Your task to perform on an android device: all mails in gmail Image 0: 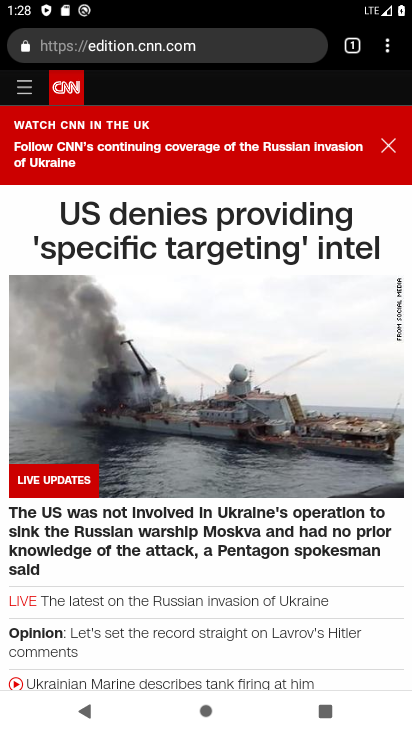
Step 0: press home button
Your task to perform on an android device: all mails in gmail Image 1: 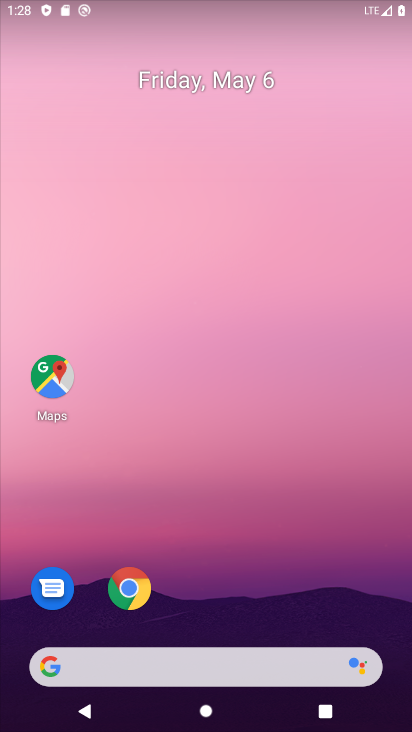
Step 1: drag from (381, 578) to (338, 72)
Your task to perform on an android device: all mails in gmail Image 2: 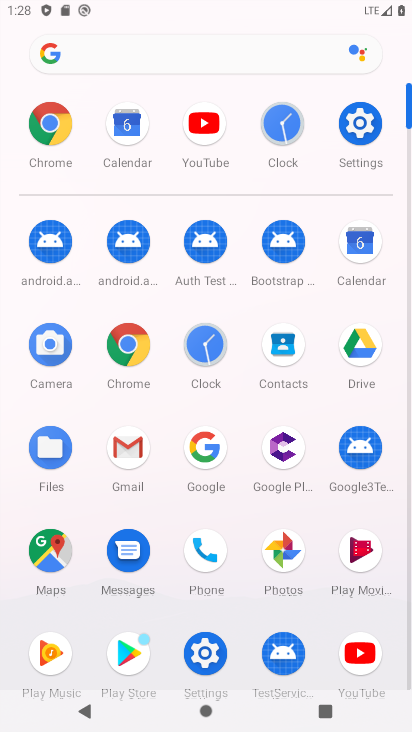
Step 2: click (128, 447)
Your task to perform on an android device: all mails in gmail Image 3: 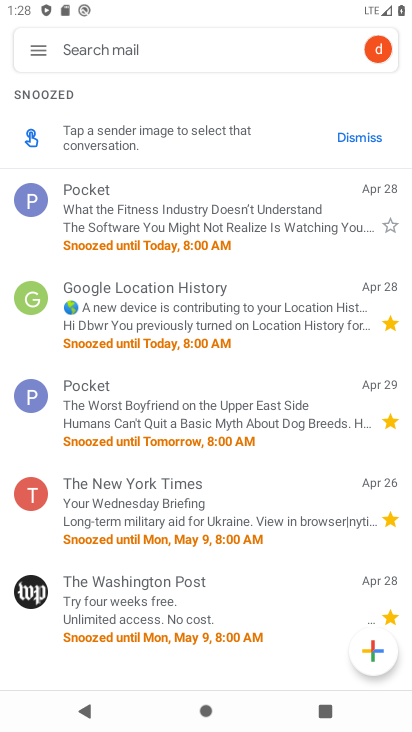
Step 3: click (36, 50)
Your task to perform on an android device: all mails in gmail Image 4: 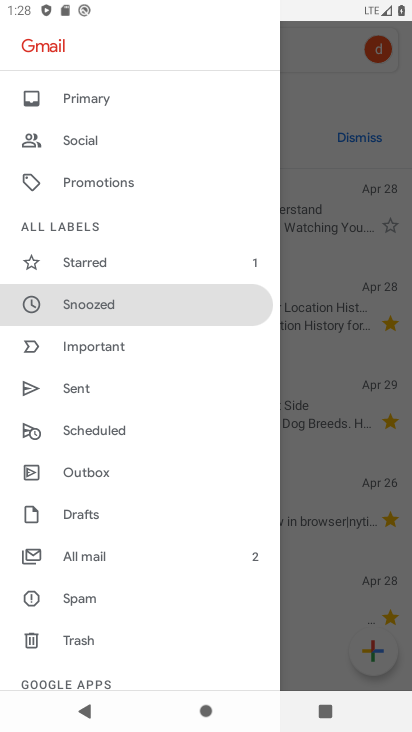
Step 4: click (88, 557)
Your task to perform on an android device: all mails in gmail Image 5: 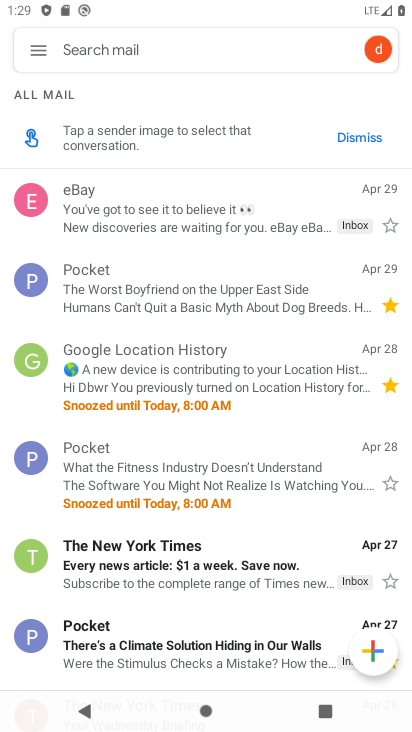
Step 5: task complete